Your task to perform on an android device: turn on the 12-hour format for clock Image 0: 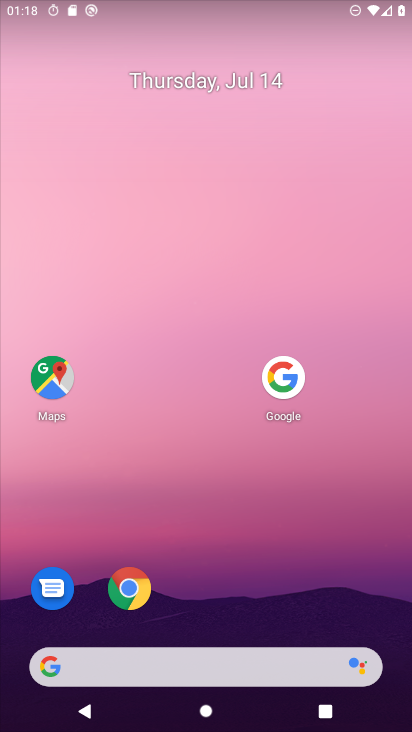
Step 0: drag from (185, 612) to (233, 166)
Your task to perform on an android device: turn on the 12-hour format for clock Image 1: 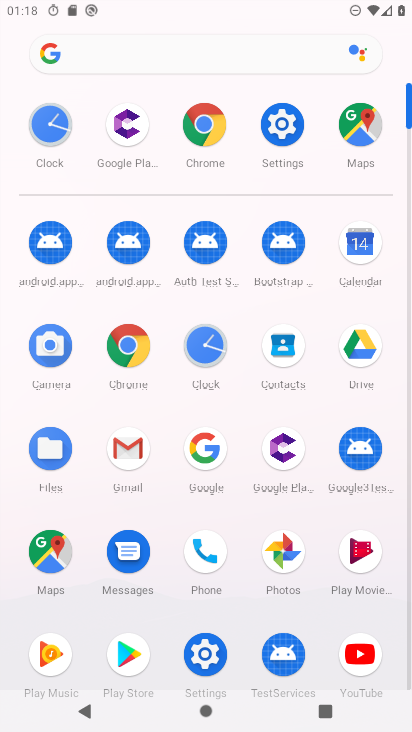
Step 1: click (205, 345)
Your task to perform on an android device: turn on the 12-hour format for clock Image 2: 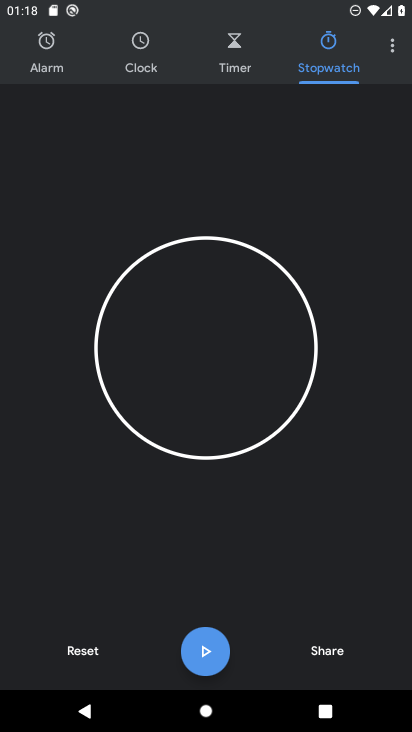
Step 2: click (391, 53)
Your task to perform on an android device: turn on the 12-hour format for clock Image 3: 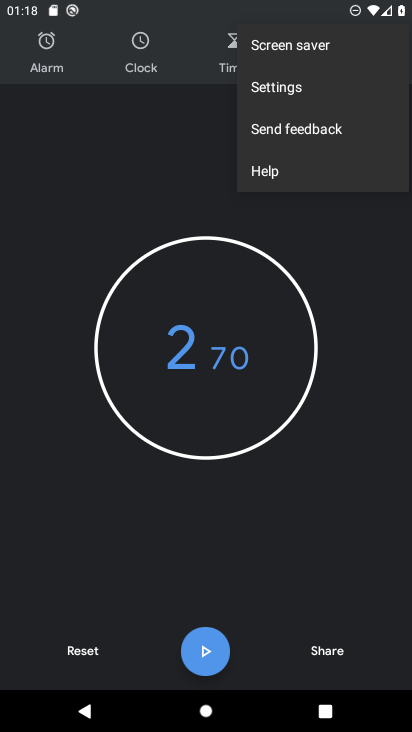
Step 3: click (274, 91)
Your task to perform on an android device: turn on the 12-hour format for clock Image 4: 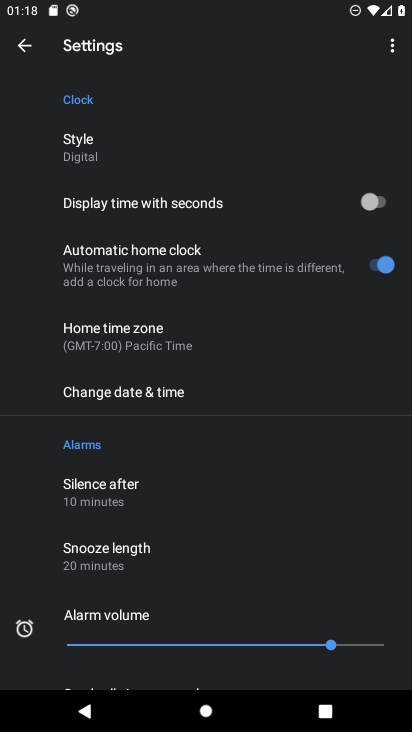
Step 4: click (152, 390)
Your task to perform on an android device: turn on the 12-hour format for clock Image 5: 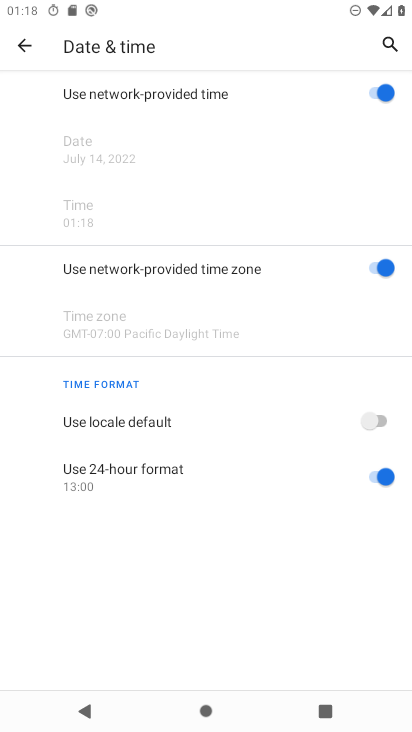
Step 5: click (380, 416)
Your task to perform on an android device: turn on the 12-hour format for clock Image 6: 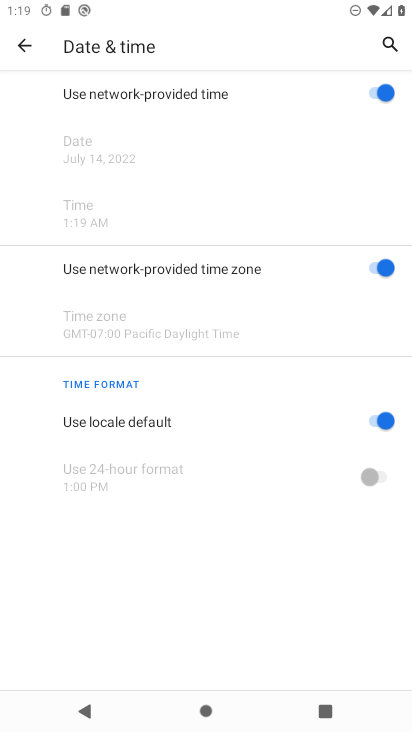
Step 6: task complete